Your task to perform on an android device: Open the map Image 0: 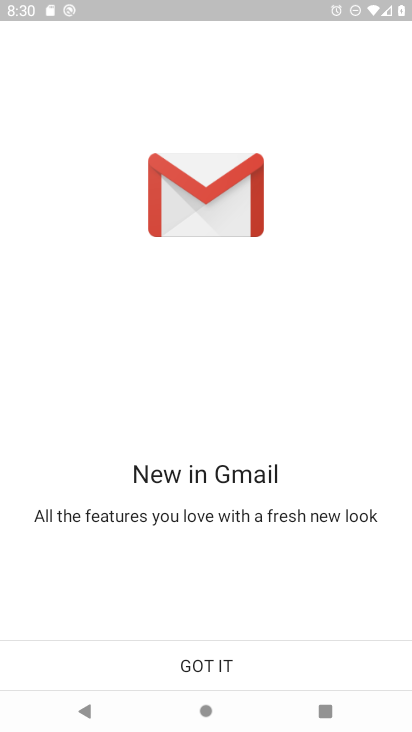
Step 0: press home button
Your task to perform on an android device: Open the map Image 1: 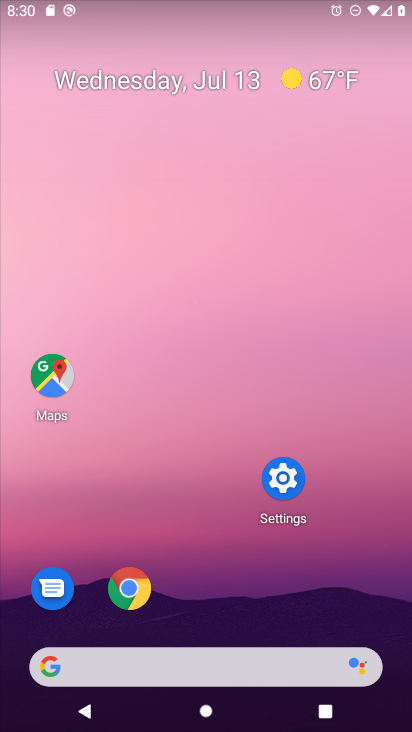
Step 1: click (59, 381)
Your task to perform on an android device: Open the map Image 2: 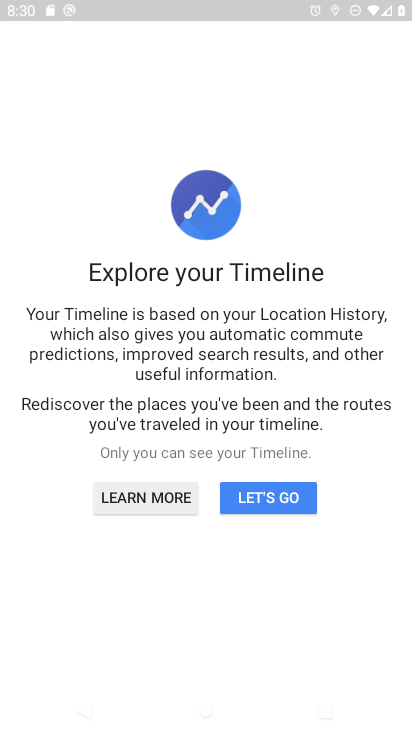
Step 2: click (266, 486)
Your task to perform on an android device: Open the map Image 3: 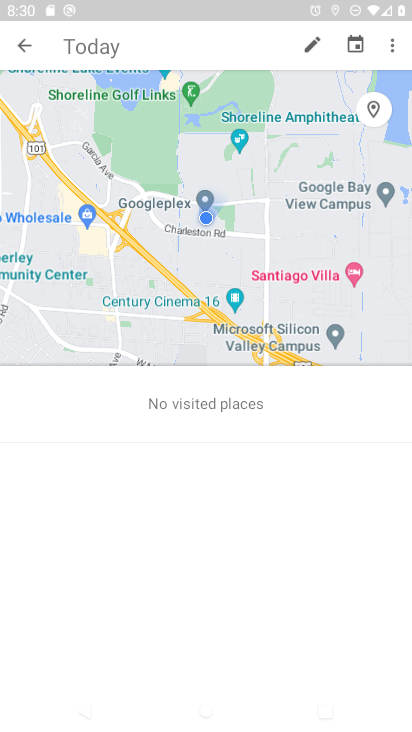
Step 3: click (25, 46)
Your task to perform on an android device: Open the map Image 4: 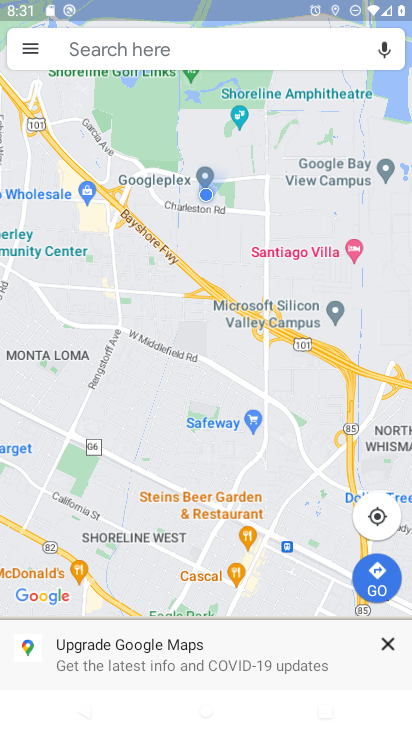
Step 4: click (392, 514)
Your task to perform on an android device: Open the map Image 5: 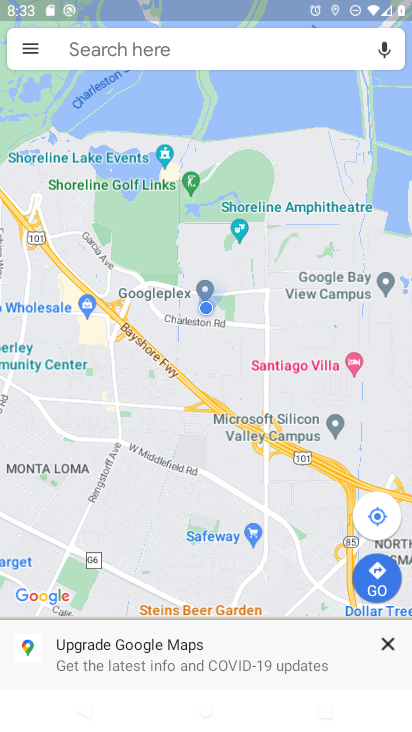
Step 5: task complete